Your task to perform on an android device: Open settings Image 0: 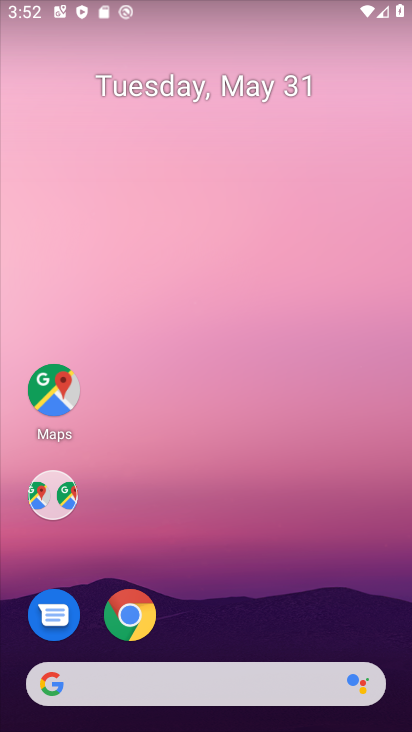
Step 0: drag from (248, 525) to (161, 177)
Your task to perform on an android device: Open settings Image 1: 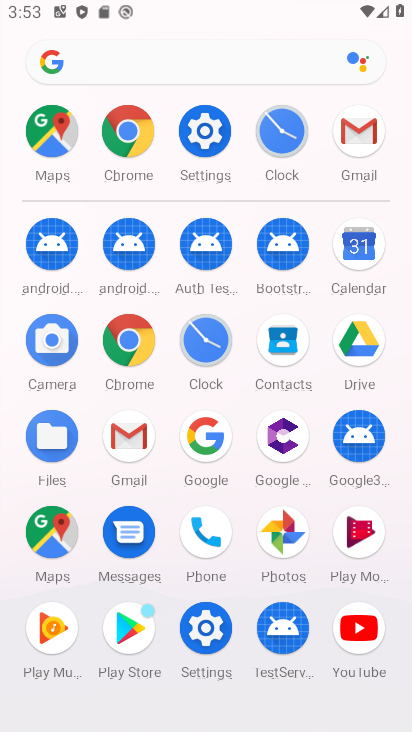
Step 1: click (215, 135)
Your task to perform on an android device: Open settings Image 2: 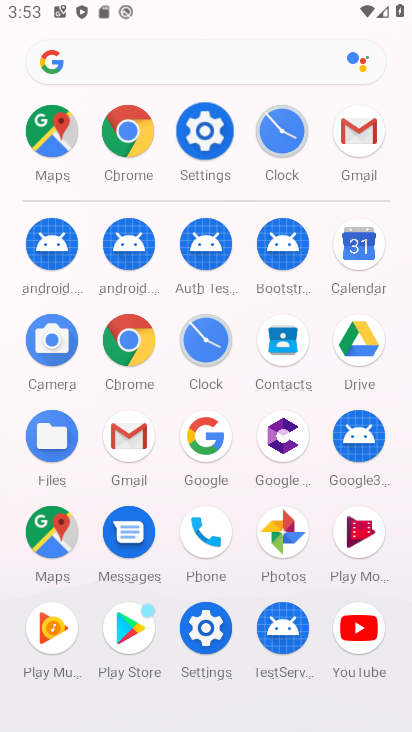
Step 2: click (215, 135)
Your task to perform on an android device: Open settings Image 3: 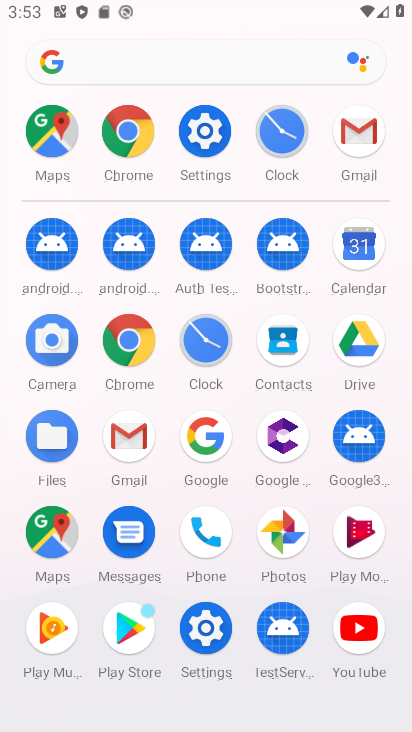
Step 3: click (202, 128)
Your task to perform on an android device: Open settings Image 4: 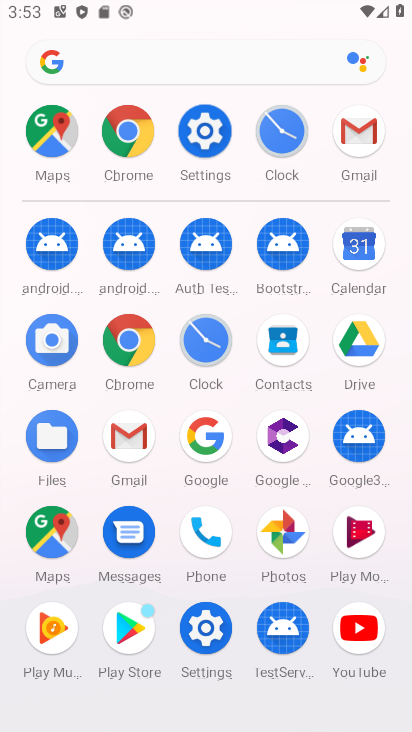
Step 4: click (202, 128)
Your task to perform on an android device: Open settings Image 5: 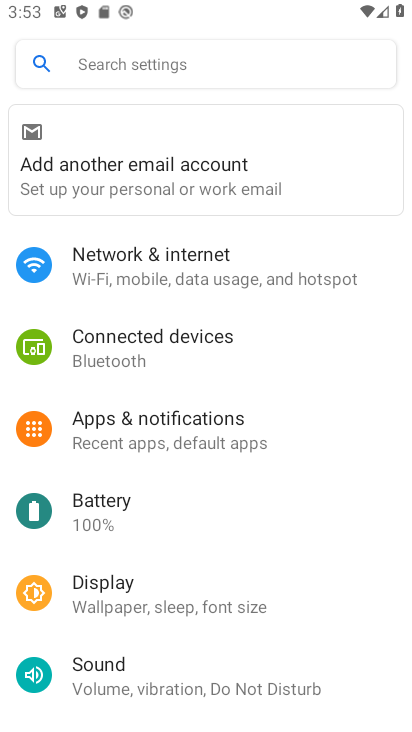
Step 5: task complete